Your task to perform on an android device: toggle location history Image 0: 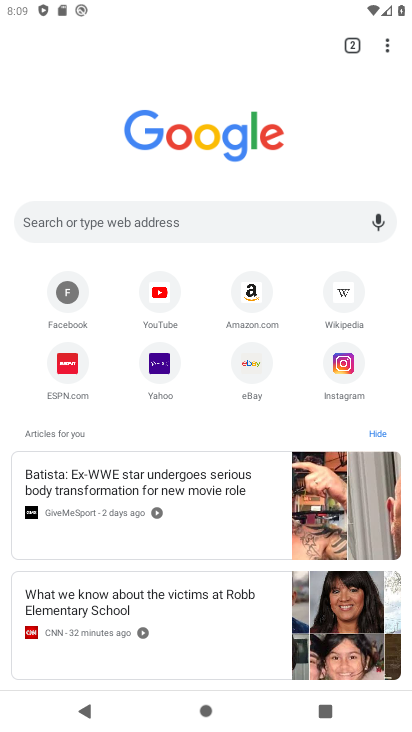
Step 0: press home button
Your task to perform on an android device: toggle location history Image 1: 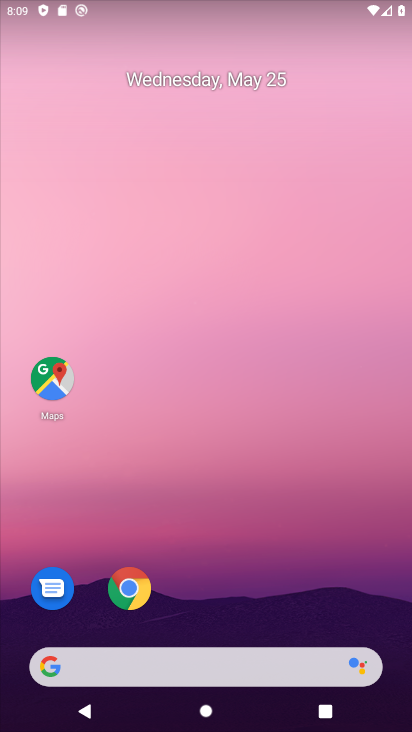
Step 1: drag from (42, 578) to (324, 83)
Your task to perform on an android device: toggle location history Image 2: 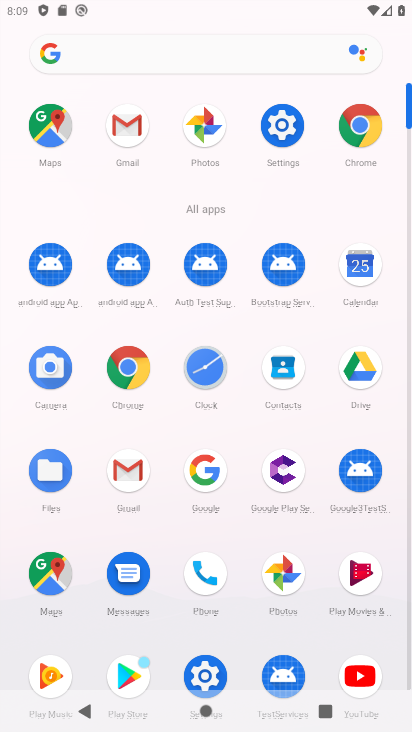
Step 2: click (304, 120)
Your task to perform on an android device: toggle location history Image 3: 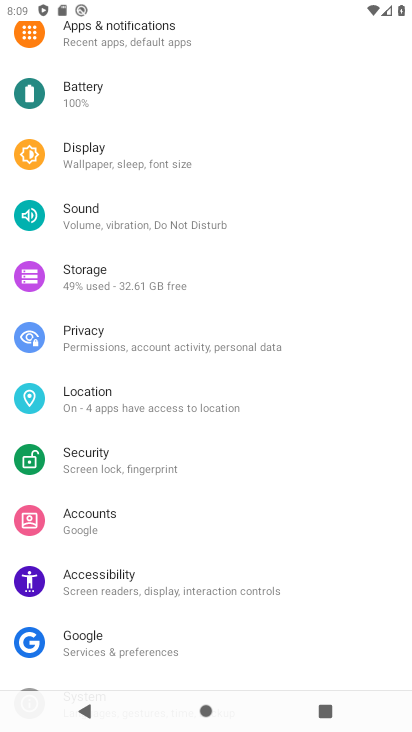
Step 3: click (112, 403)
Your task to perform on an android device: toggle location history Image 4: 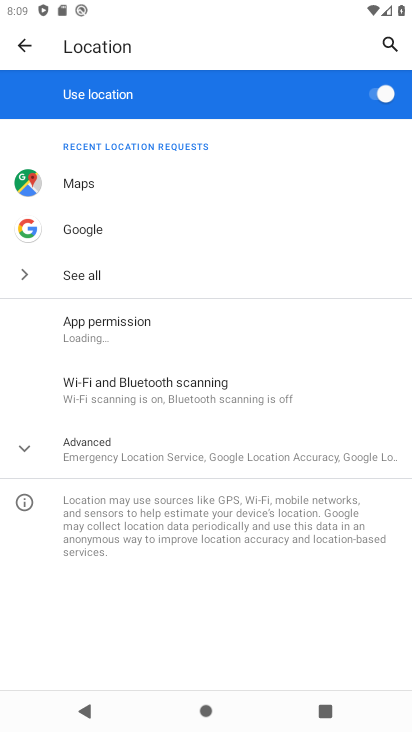
Step 4: click (113, 440)
Your task to perform on an android device: toggle location history Image 5: 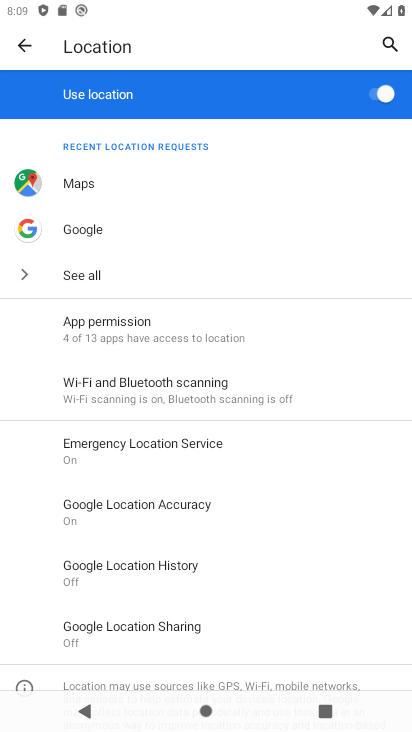
Step 5: click (185, 559)
Your task to perform on an android device: toggle location history Image 6: 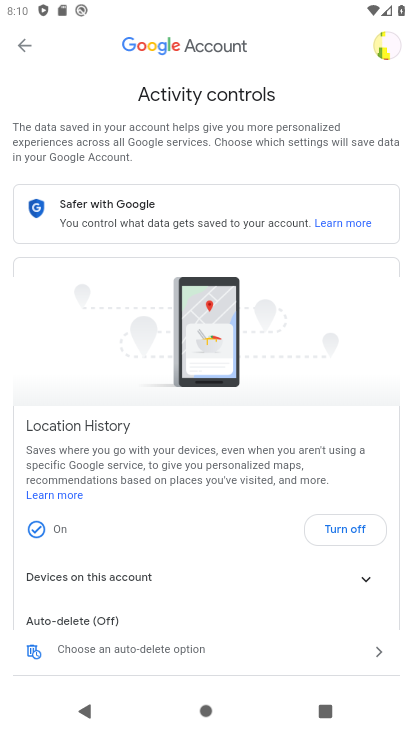
Step 6: click (354, 524)
Your task to perform on an android device: toggle location history Image 7: 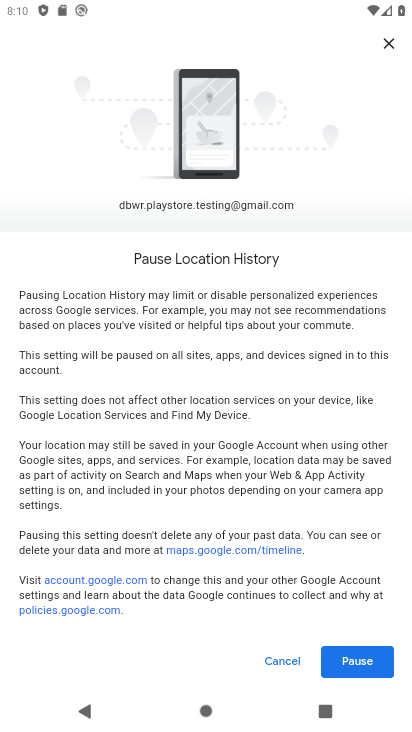
Step 7: click (370, 661)
Your task to perform on an android device: toggle location history Image 8: 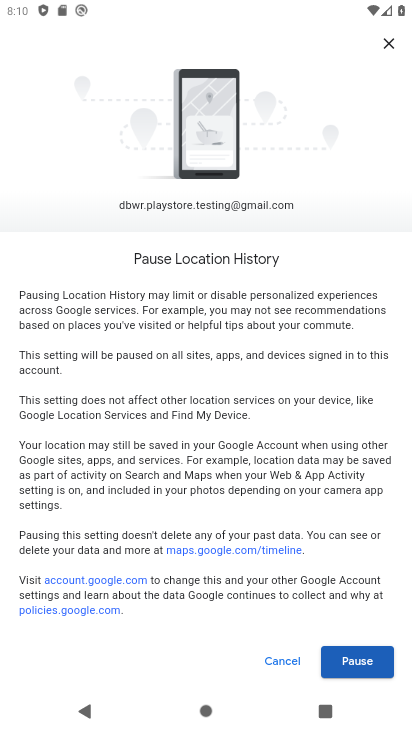
Step 8: click (340, 659)
Your task to perform on an android device: toggle location history Image 9: 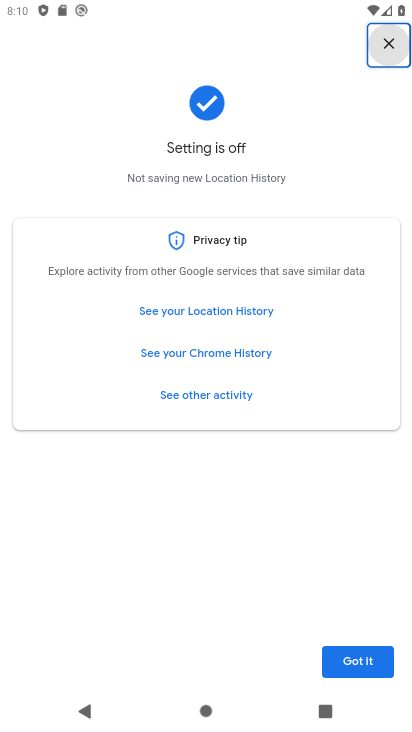
Step 9: click (338, 658)
Your task to perform on an android device: toggle location history Image 10: 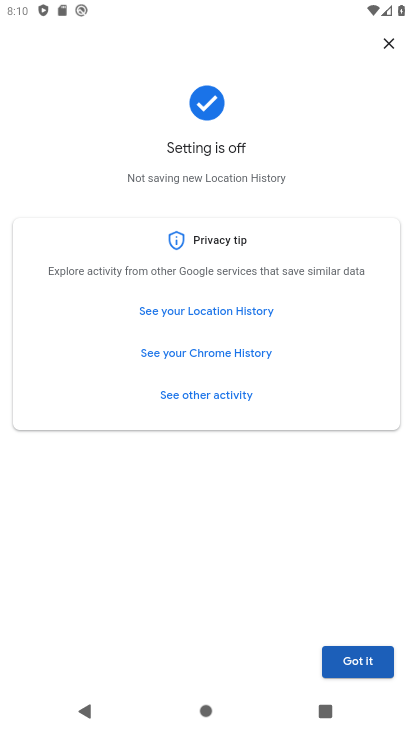
Step 10: task complete